Your task to perform on an android device: change the clock display to digital Image 0: 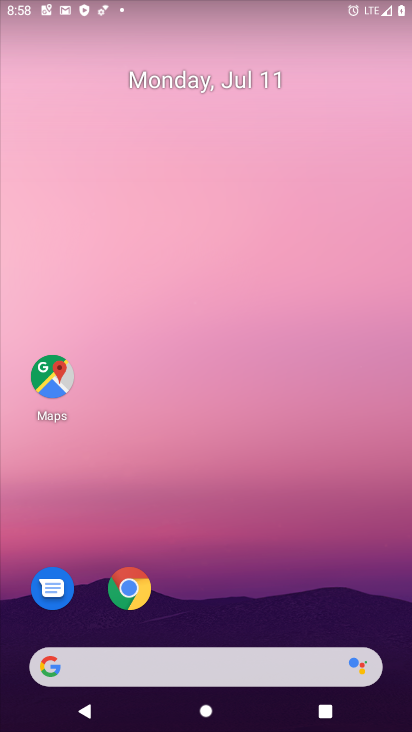
Step 0: drag from (192, 667) to (363, 10)
Your task to perform on an android device: change the clock display to digital Image 1: 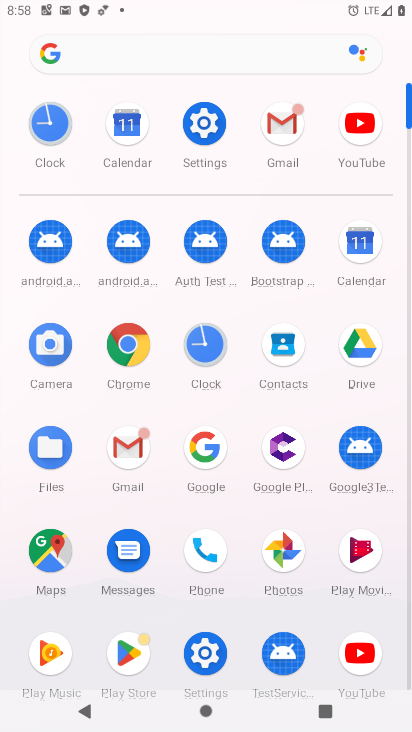
Step 1: click (216, 343)
Your task to perform on an android device: change the clock display to digital Image 2: 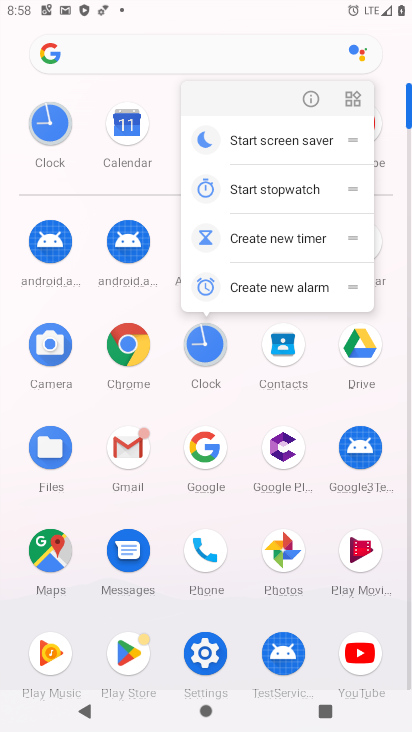
Step 2: click (216, 343)
Your task to perform on an android device: change the clock display to digital Image 3: 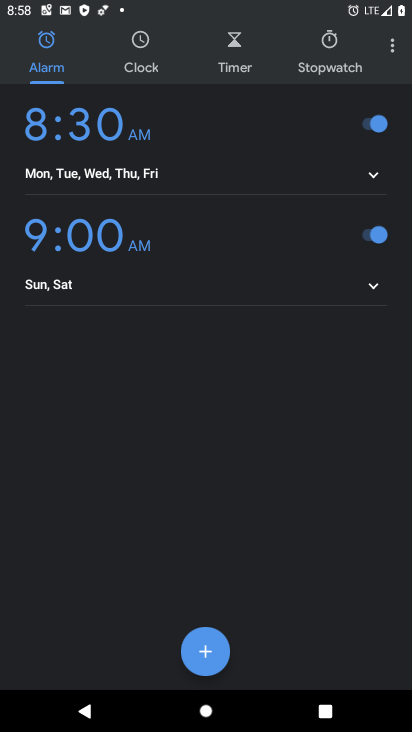
Step 3: click (390, 44)
Your task to perform on an android device: change the clock display to digital Image 4: 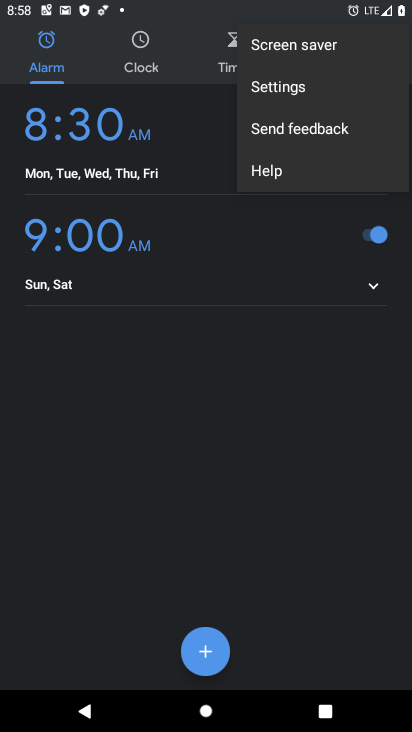
Step 4: click (294, 91)
Your task to perform on an android device: change the clock display to digital Image 5: 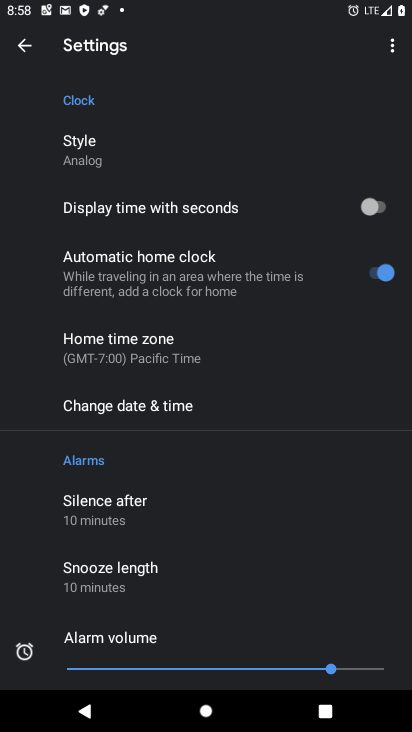
Step 5: click (106, 159)
Your task to perform on an android device: change the clock display to digital Image 6: 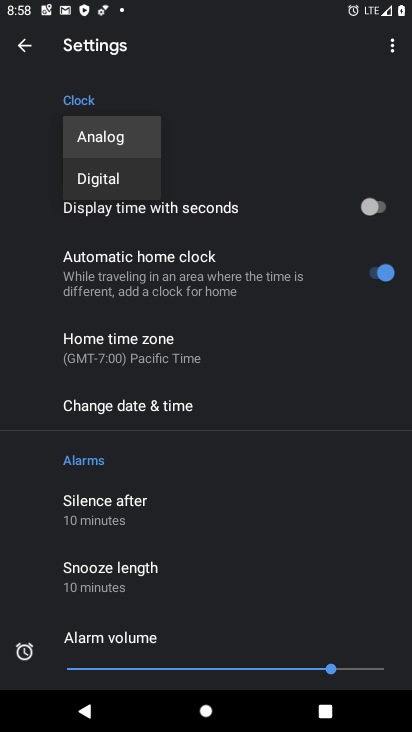
Step 6: click (101, 183)
Your task to perform on an android device: change the clock display to digital Image 7: 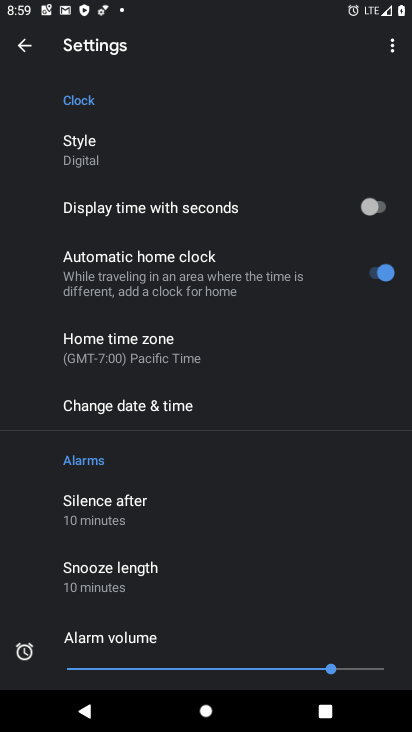
Step 7: task complete